Your task to perform on an android device: Search for Mexican restaurants on Maps Image 0: 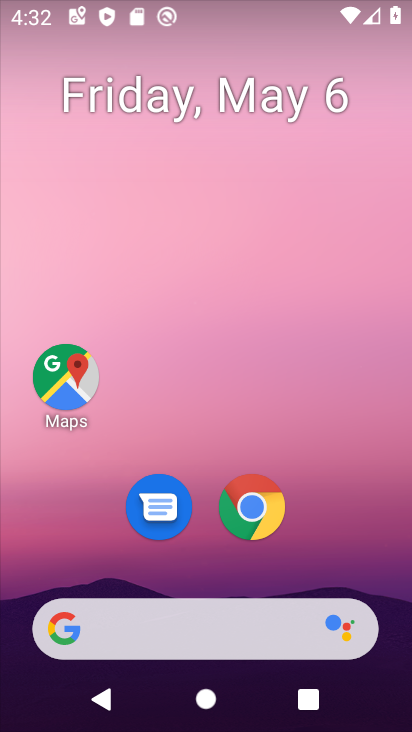
Step 0: click (58, 383)
Your task to perform on an android device: Search for Mexican restaurants on Maps Image 1: 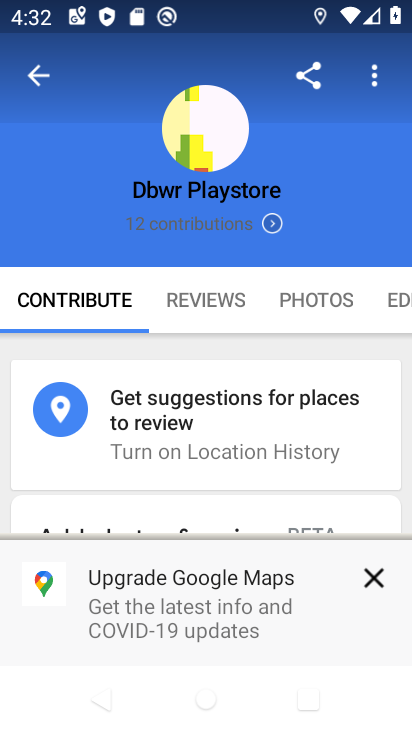
Step 1: click (46, 79)
Your task to perform on an android device: Search for Mexican restaurants on Maps Image 2: 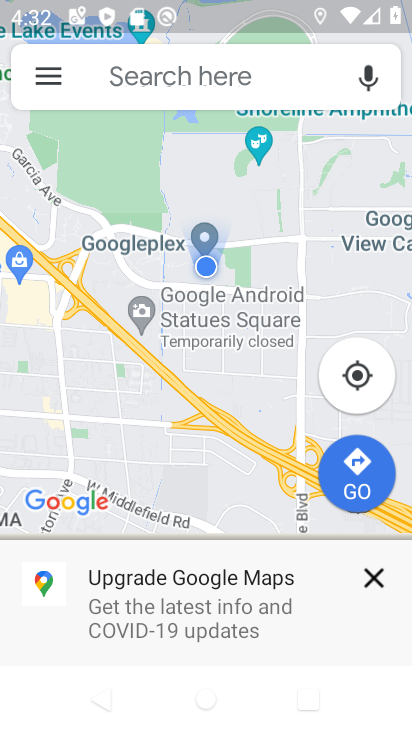
Step 2: click (116, 79)
Your task to perform on an android device: Search for Mexican restaurants on Maps Image 3: 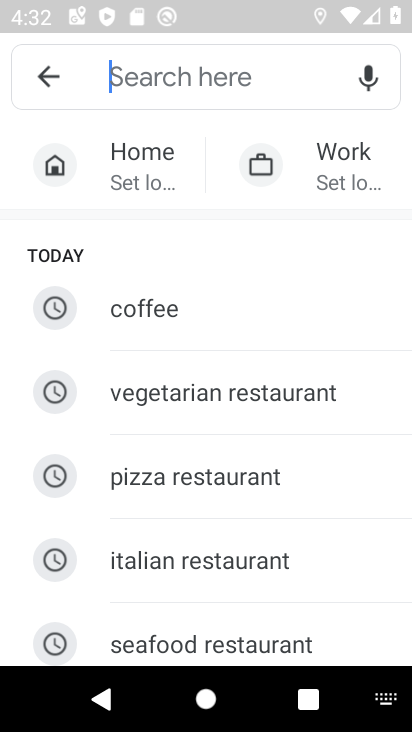
Step 3: drag from (302, 477) to (272, 204)
Your task to perform on an android device: Search for Mexican restaurants on Maps Image 4: 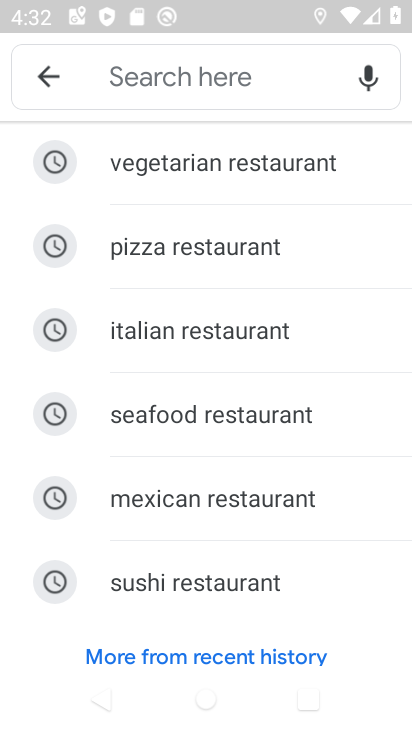
Step 4: click (219, 496)
Your task to perform on an android device: Search for Mexican restaurants on Maps Image 5: 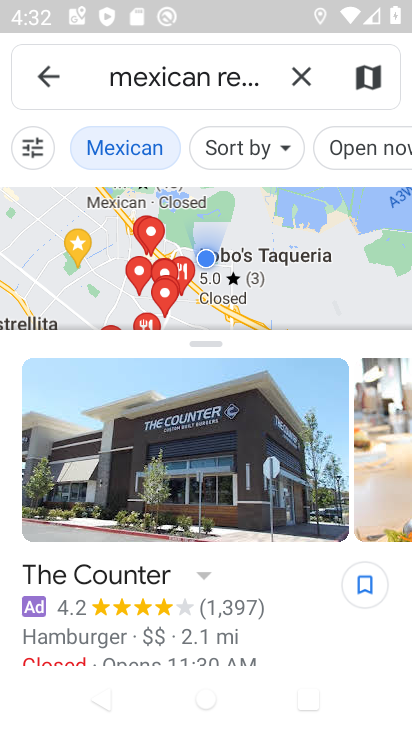
Step 5: task complete